Your task to perform on an android device: set the timer Image 0: 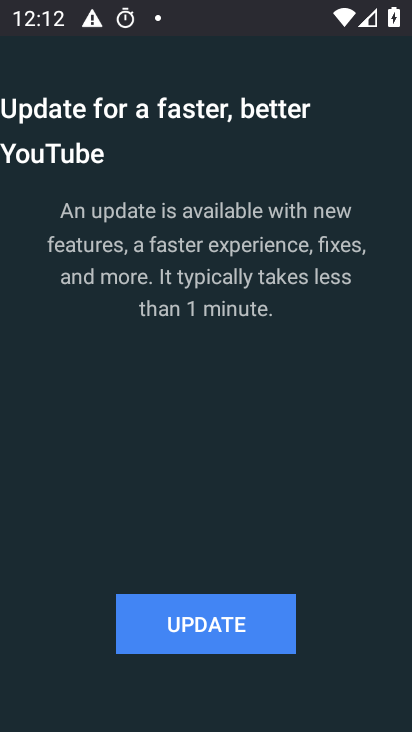
Step 0: press back button
Your task to perform on an android device: set the timer Image 1: 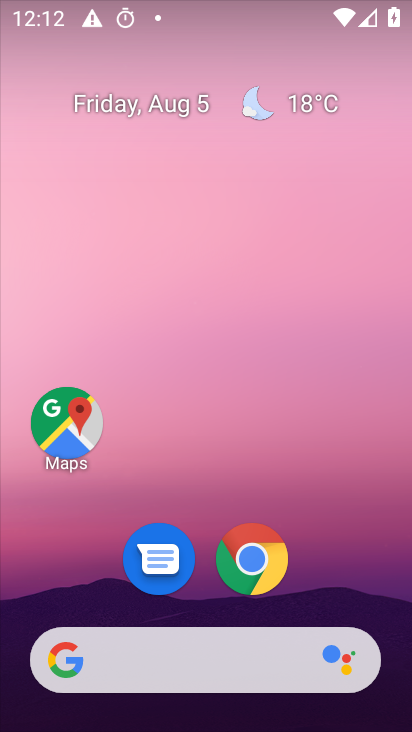
Step 1: drag from (26, 710) to (216, 300)
Your task to perform on an android device: set the timer Image 2: 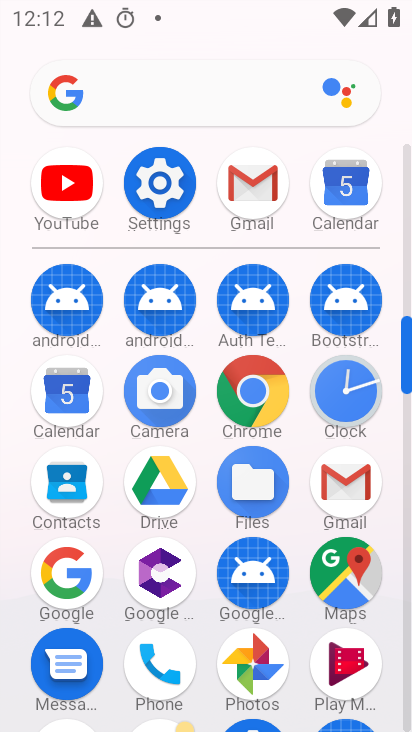
Step 2: click (331, 405)
Your task to perform on an android device: set the timer Image 3: 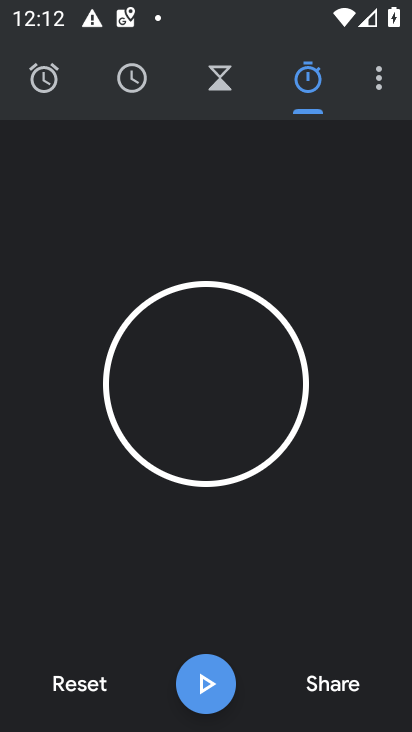
Step 3: click (125, 77)
Your task to perform on an android device: set the timer Image 4: 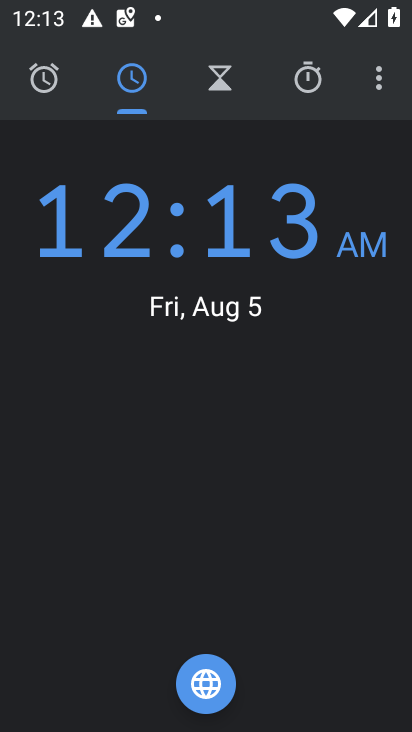
Step 4: click (212, 90)
Your task to perform on an android device: set the timer Image 5: 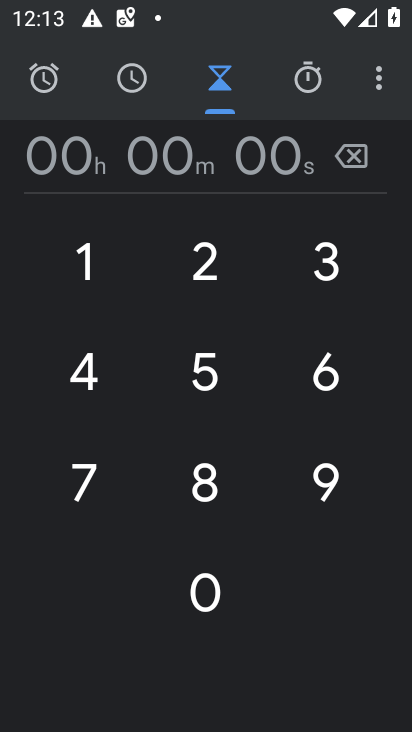
Step 5: task complete